Your task to perform on an android device: star an email in the gmail app Image 0: 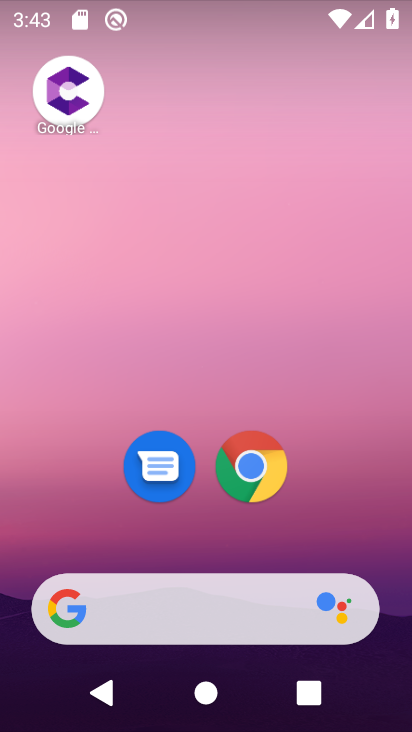
Step 0: drag from (327, 502) to (351, 0)
Your task to perform on an android device: star an email in the gmail app Image 1: 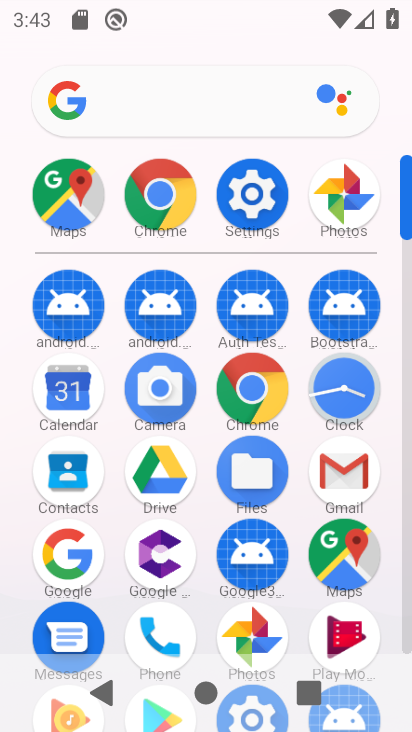
Step 1: click (351, 458)
Your task to perform on an android device: star an email in the gmail app Image 2: 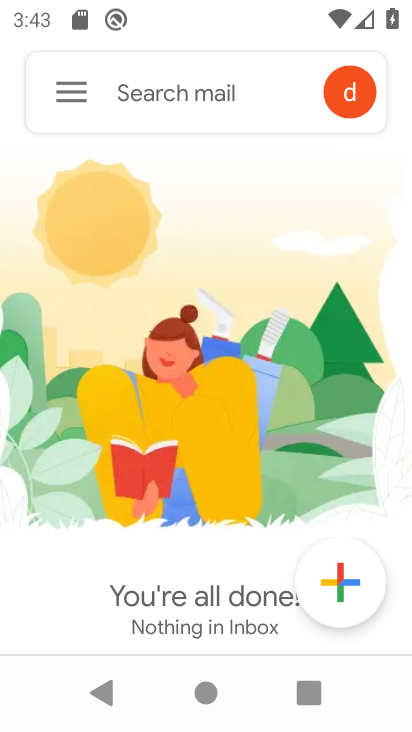
Step 2: click (80, 106)
Your task to perform on an android device: star an email in the gmail app Image 3: 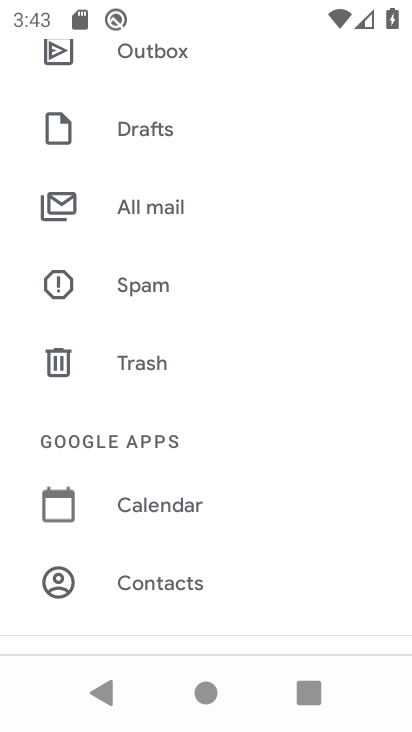
Step 3: task complete